Your task to perform on an android device: What's the weather going to be tomorrow? Image 0: 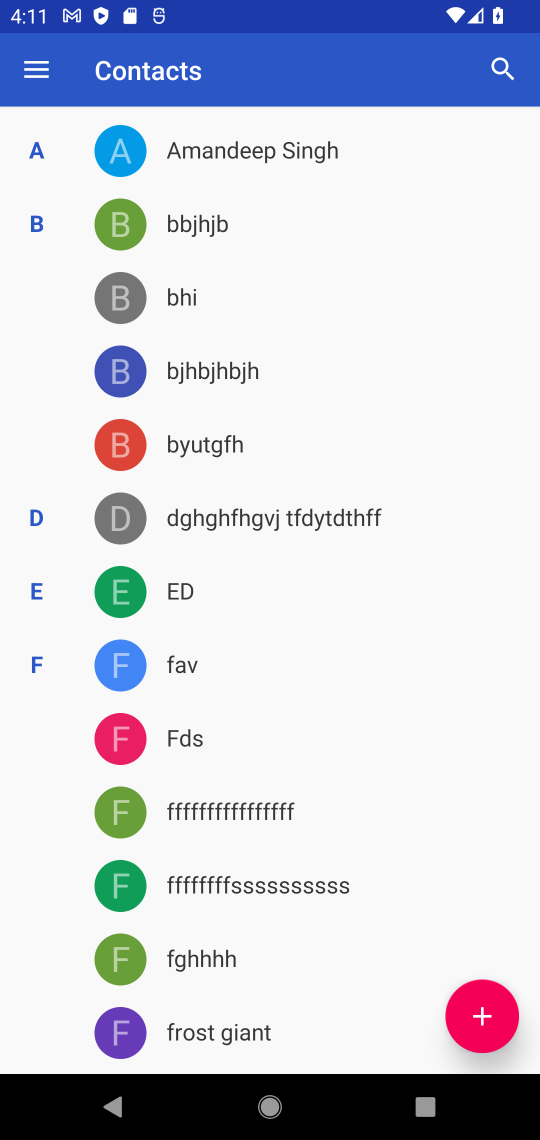
Step 0: press home button
Your task to perform on an android device: What's the weather going to be tomorrow? Image 1: 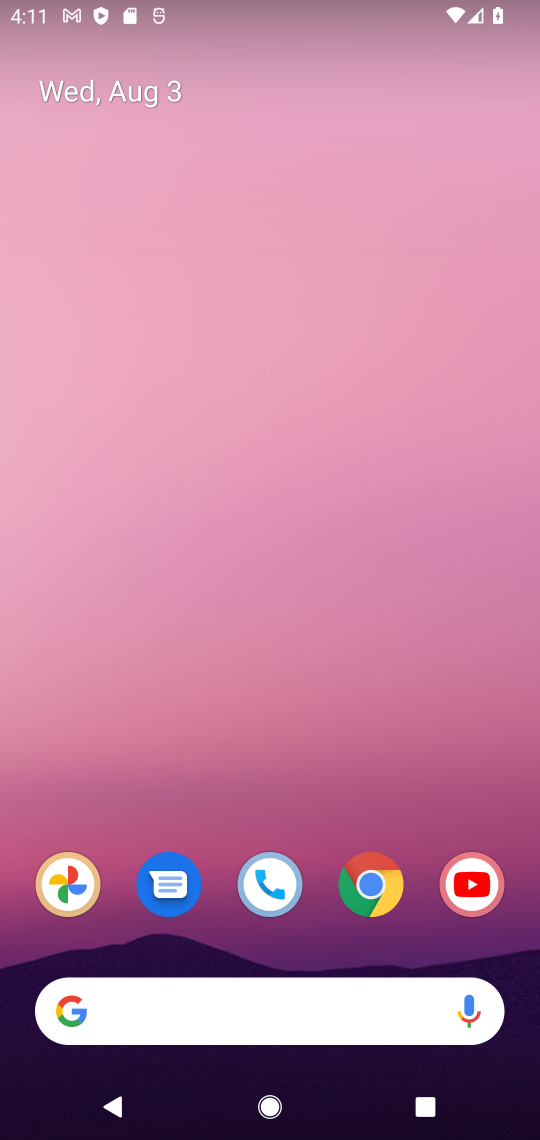
Step 1: drag from (160, 813) to (228, 30)
Your task to perform on an android device: What's the weather going to be tomorrow? Image 2: 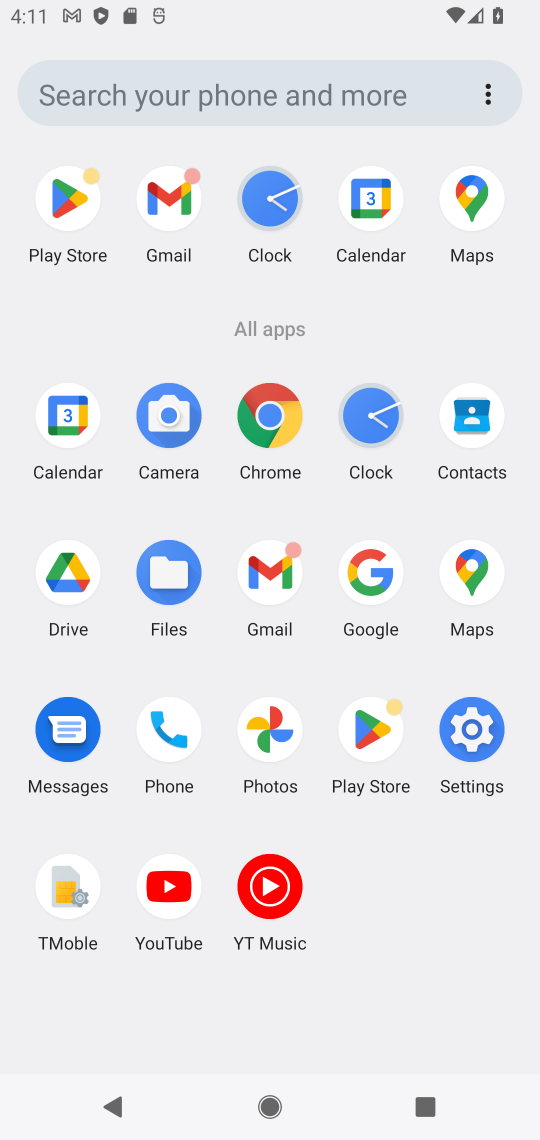
Step 2: click (386, 567)
Your task to perform on an android device: What's the weather going to be tomorrow? Image 3: 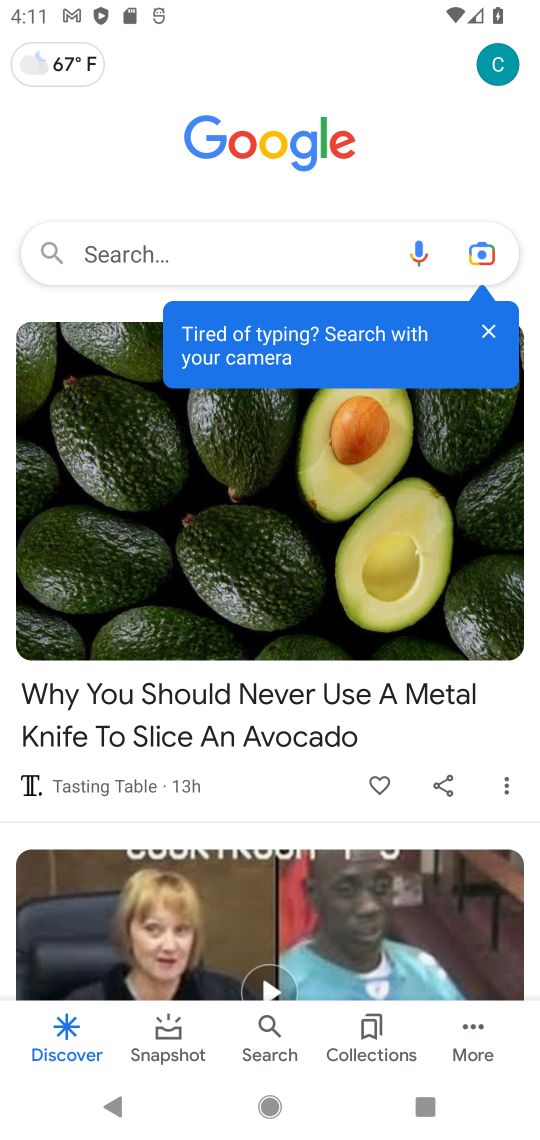
Step 3: click (159, 249)
Your task to perform on an android device: What's the weather going to be tomorrow? Image 4: 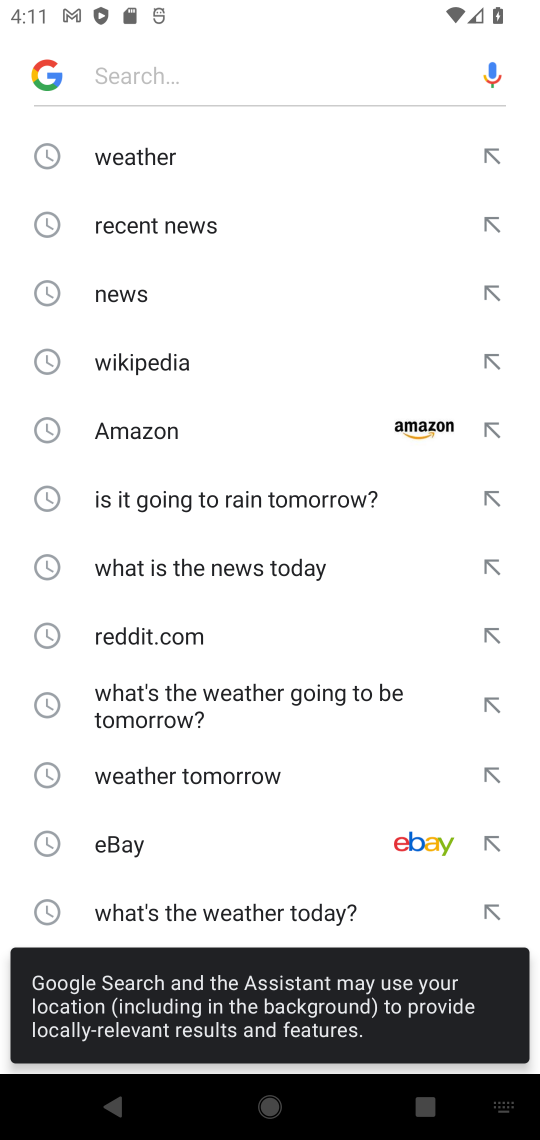
Step 4: click (106, 148)
Your task to perform on an android device: What's the weather going to be tomorrow? Image 5: 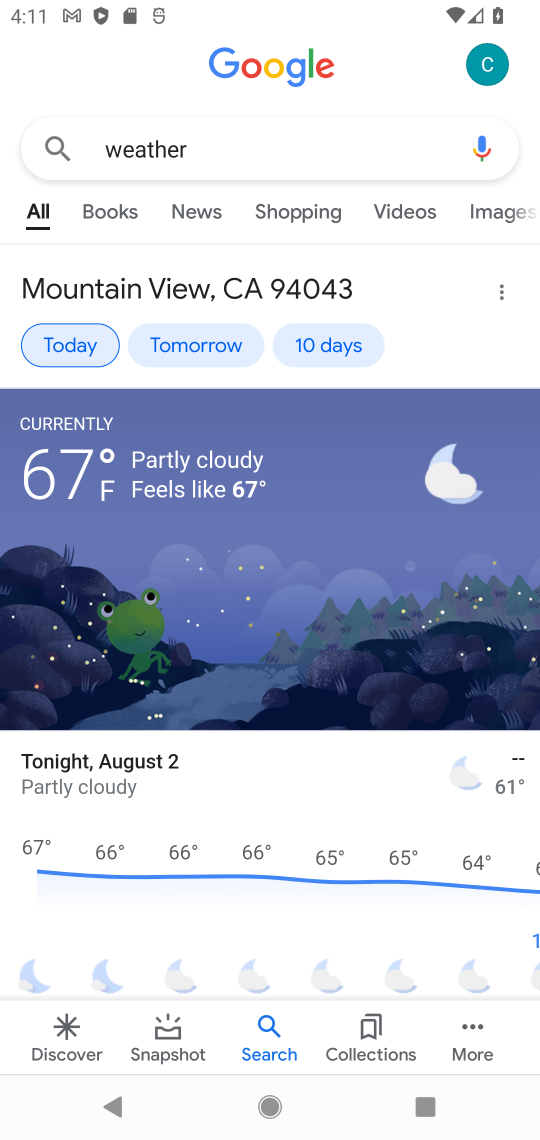
Step 5: click (230, 346)
Your task to perform on an android device: What's the weather going to be tomorrow? Image 6: 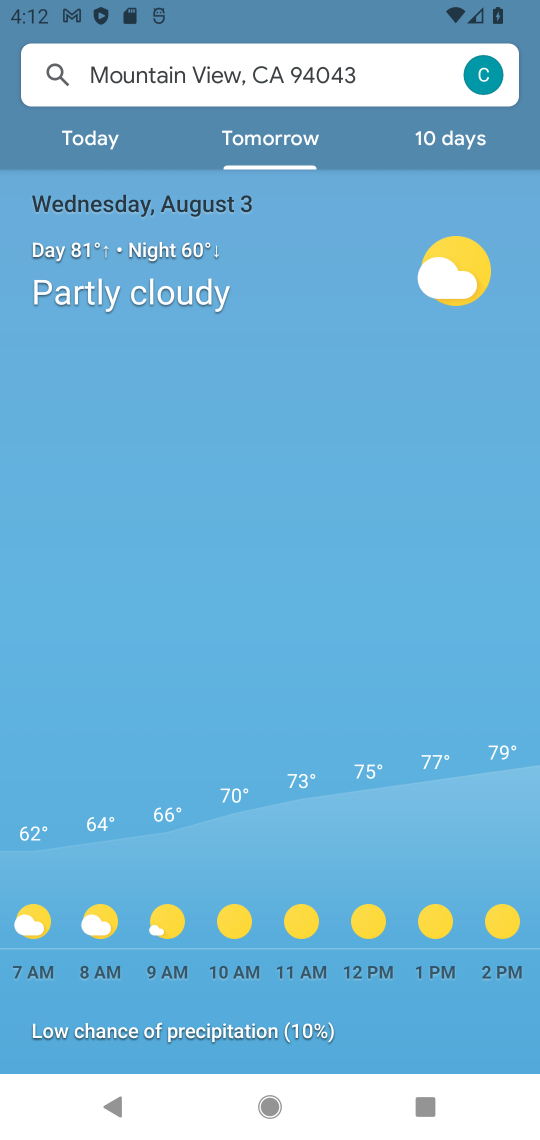
Step 6: task complete